Your task to perform on an android device: Open Maps and search for coffee Image 0: 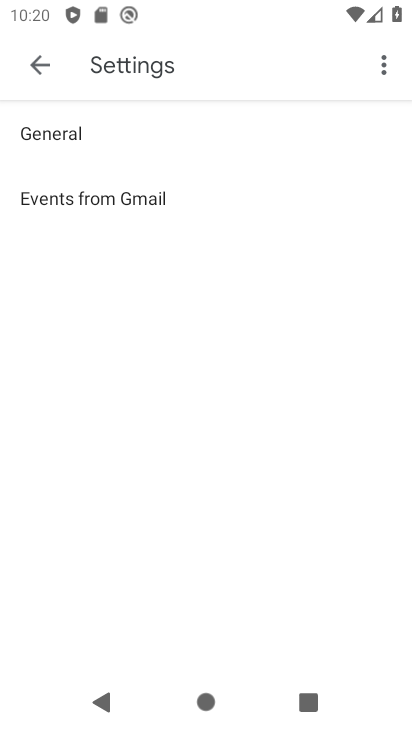
Step 0: press home button
Your task to perform on an android device: Open Maps and search for coffee Image 1: 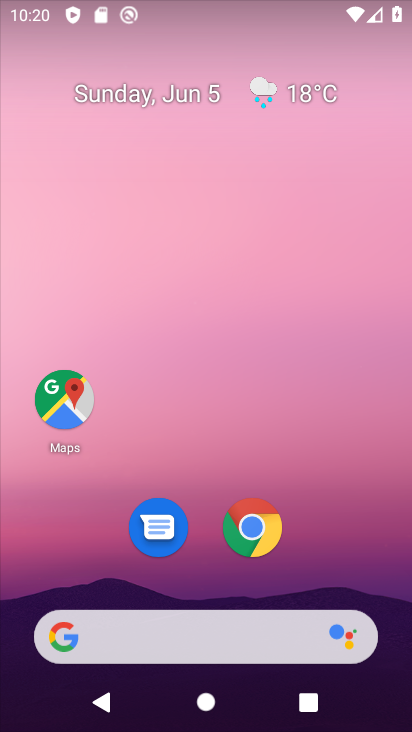
Step 1: click (59, 413)
Your task to perform on an android device: Open Maps and search for coffee Image 2: 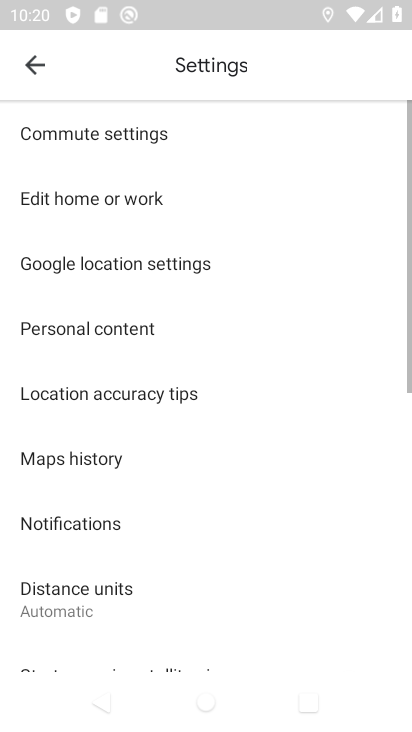
Step 2: click (36, 65)
Your task to perform on an android device: Open Maps and search for coffee Image 3: 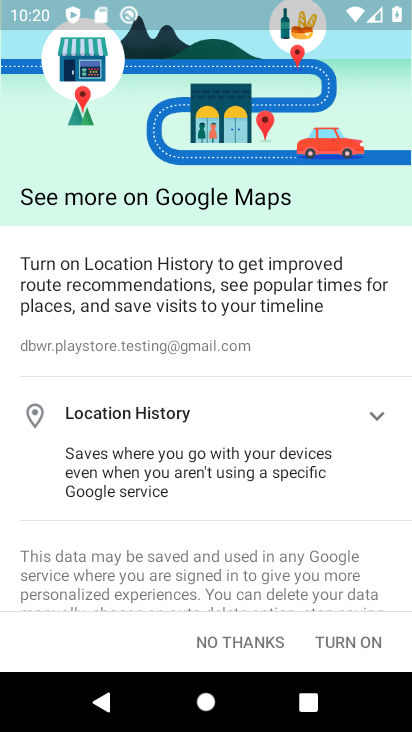
Step 3: click (257, 639)
Your task to perform on an android device: Open Maps and search for coffee Image 4: 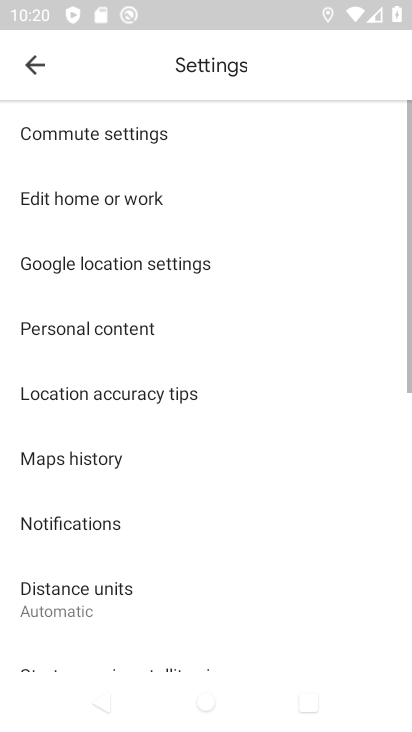
Step 4: click (47, 68)
Your task to perform on an android device: Open Maps and search for coffee Image 5: 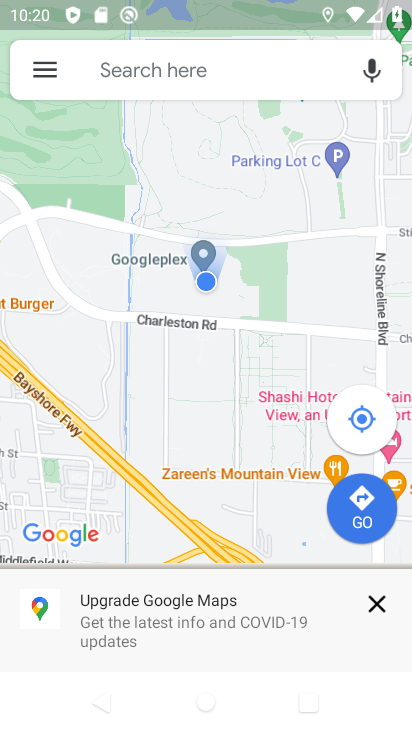
Step 5: click (198, 59)
Your task to perform on an android device: Open Maps and search for coffee Image 6: 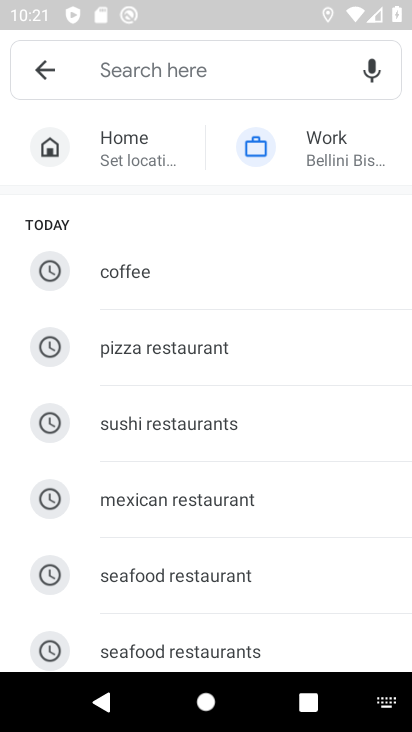
Step 6: type "coffee"
Your task to perform on an android device: Open Maps and search for coffee Image 7: 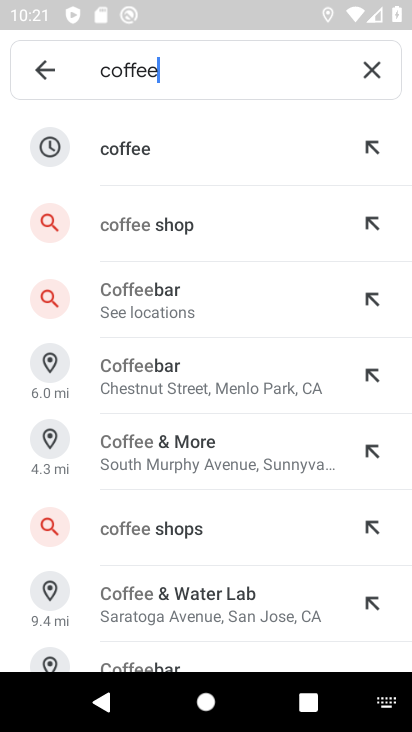
Step 7: click (121, 154)
Your task to perform on an android device: Open Maps and search for coffee Image 8: 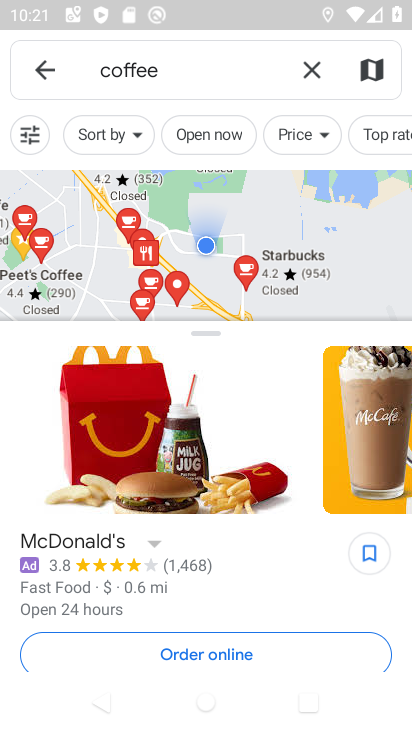
Step 8: task complete